Your task to perform on an android device: Go to network settings Image 0: 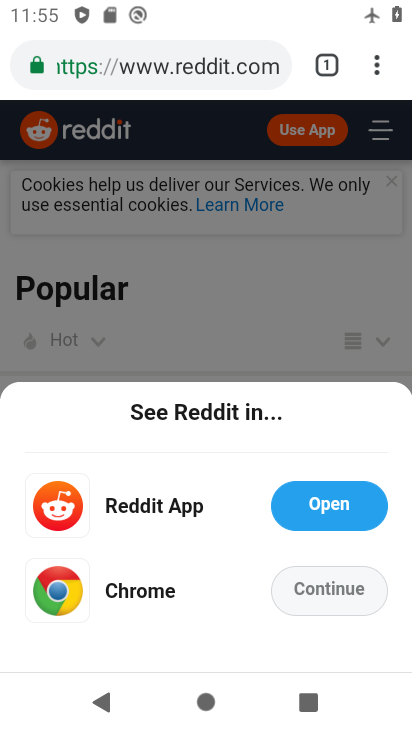
Step 0: press home button
Your task to perform on an android device: Go to network settings Image 1: 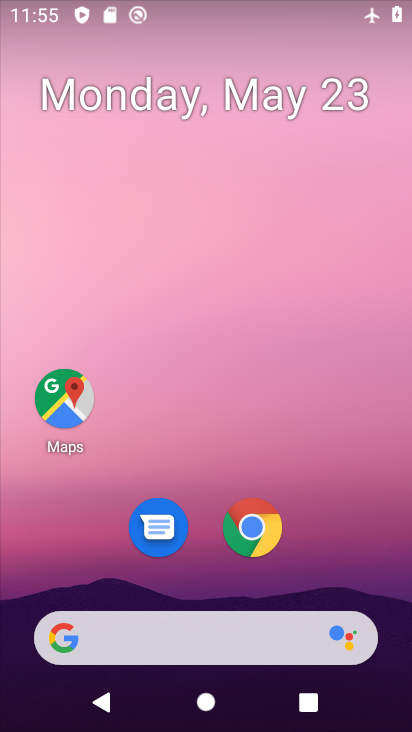
Step 1: drag from (180, 634) to (184, 163)
Your task to perform on an android device: Go to network settings Image 2: 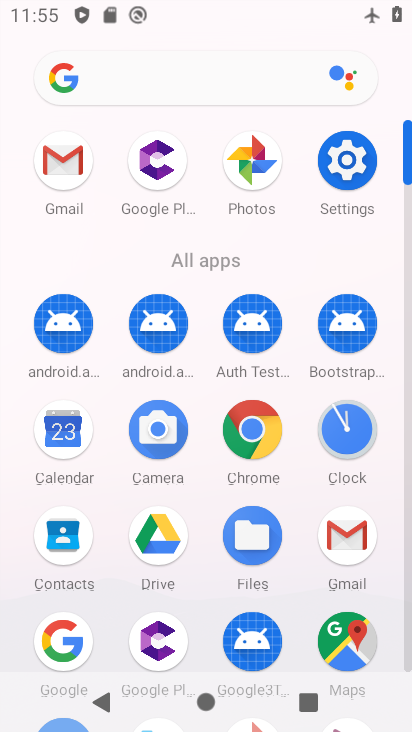
Step 2: click (338, 176)
Your task to perform on an android device: Go to network settings Image 3: 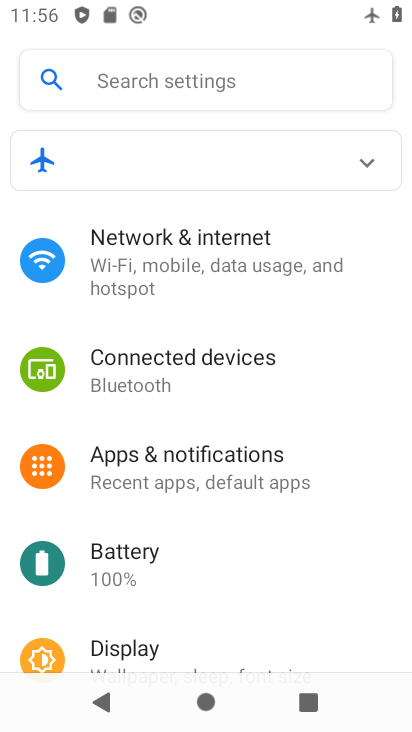
Step 3: click (171, 246)
Your task to perform on an android device: Go to network settings Image 4: 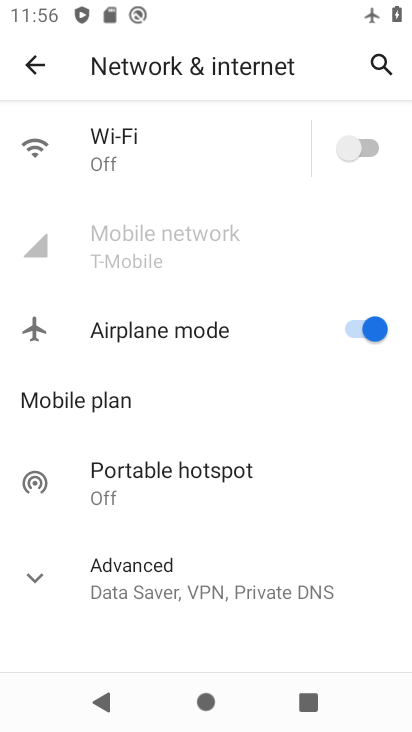
Step 4: task complete